Your task to perform on an android device: Go to Android settings Image 0: 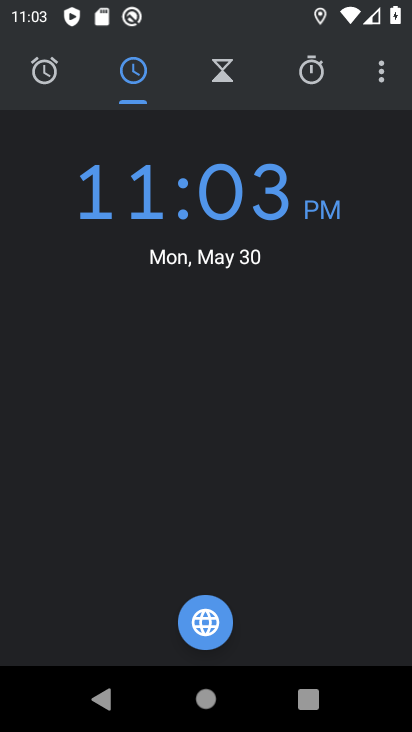
Step 0: press home button
Your task to perform on an android device: Go to Android settings Image 1: 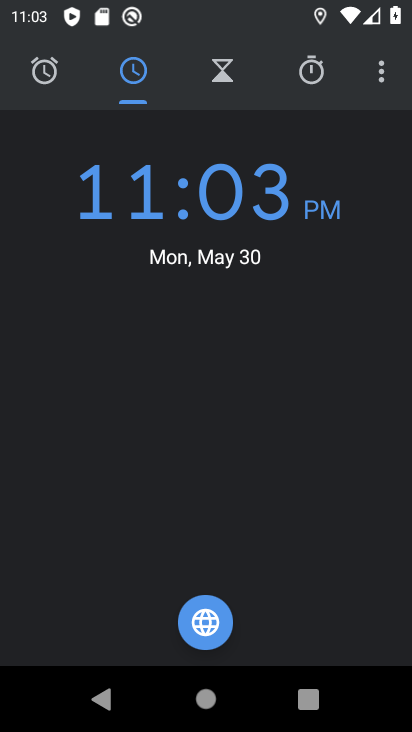
Step 1: drag from (160, 727) to (233, 79)
Your task to perform on an android device: Go to Android settings Image 2: 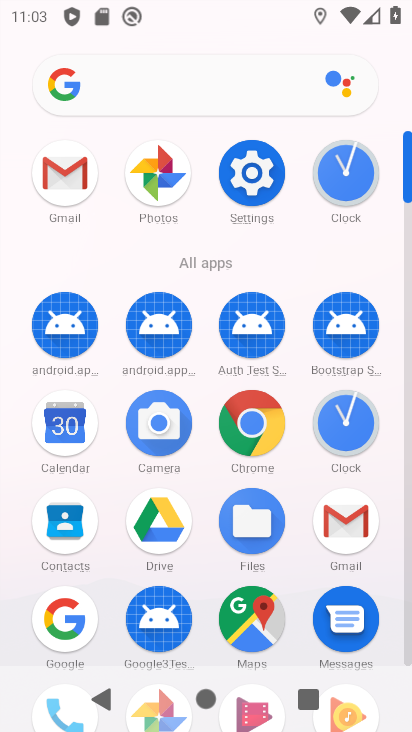
Step 2: click (250, 176)
Your task to perform on an android device: Go to Android settings Image 3: 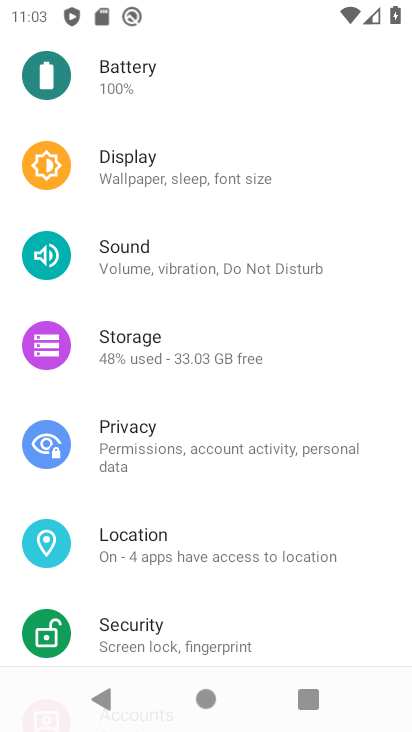
Step 3: task complete